Your task to perform on an android device: toggle notifications settings in the gmail app Image 0: 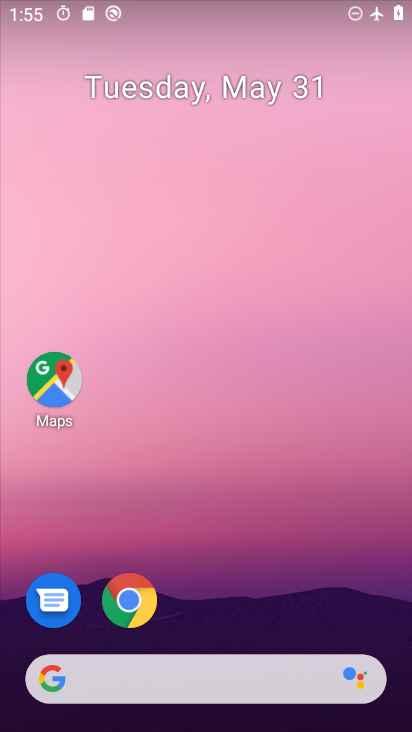
Step 0: drag from (252, 692) to (252, 87)
Your task to perform on an android device: toggle notifications settings in the gmail app Image 1: 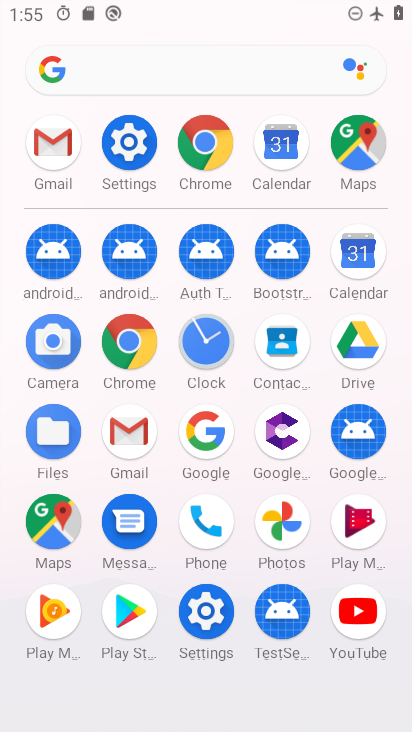
Step 1: click (134, 428)
Your task to perform on an android device: toggle notifications settings in the gmail app Image 2: 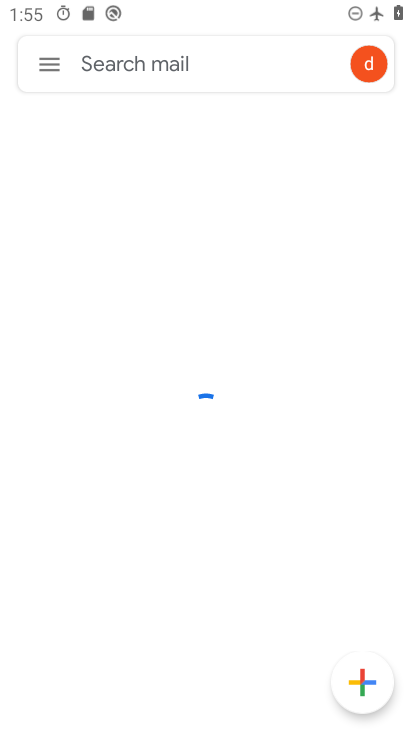
Step 2: click (53, 66)
Your task to perform on an android device: toggle notifications settings in the gmail app Image 3: 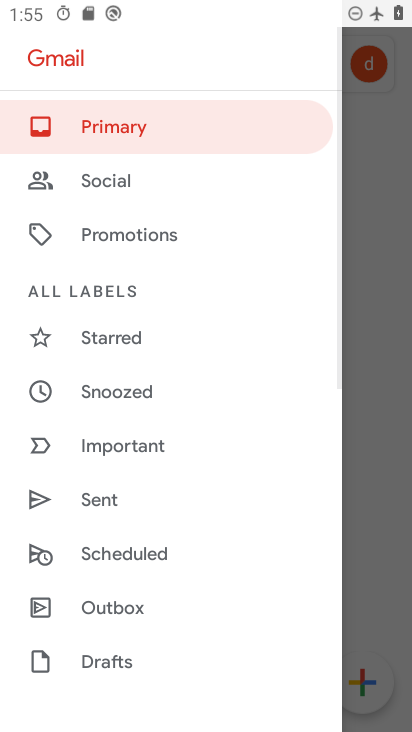
Step 3: drag from (146, 681) to (157, 223)
Your task to perform on an android device: toggle notifications settings in the gmail app Image 4: 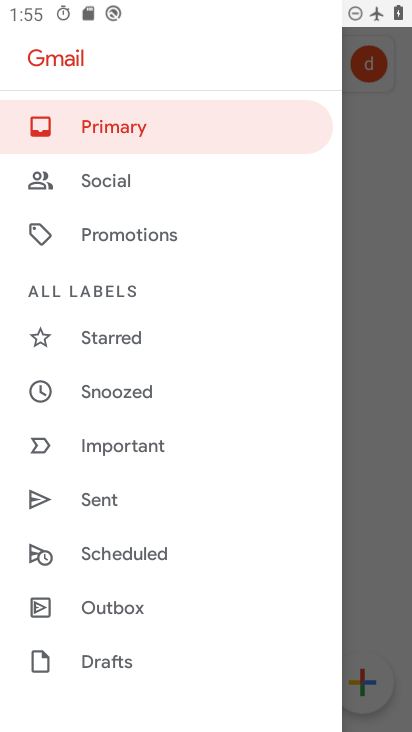
Step 4: drag from (178, 663) to (173, 214)
Your task to perform on an android device: toggle notifications settings in the gmail app Image 5: 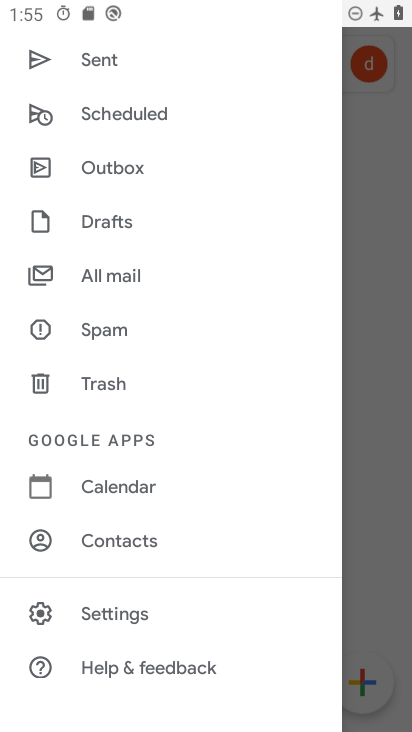
Step 5: click (117, 611)
Your task to perform on an android device: toggle notifications settings in the gmail app Image 6: 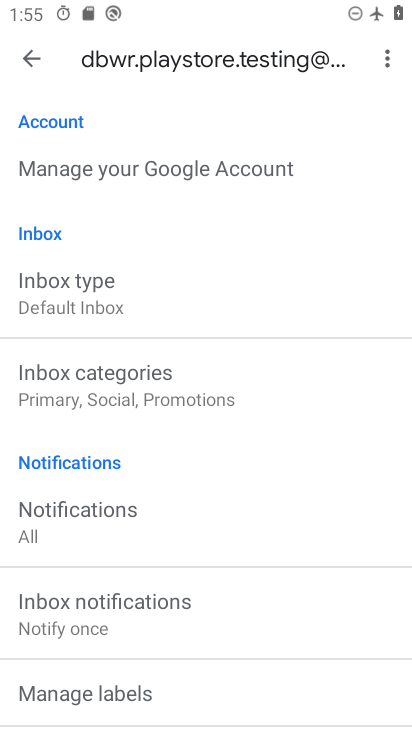
Step 6: click (76, 514)
Your task to perform on an android device: toggle notifications settings in the gmail app Image 7: 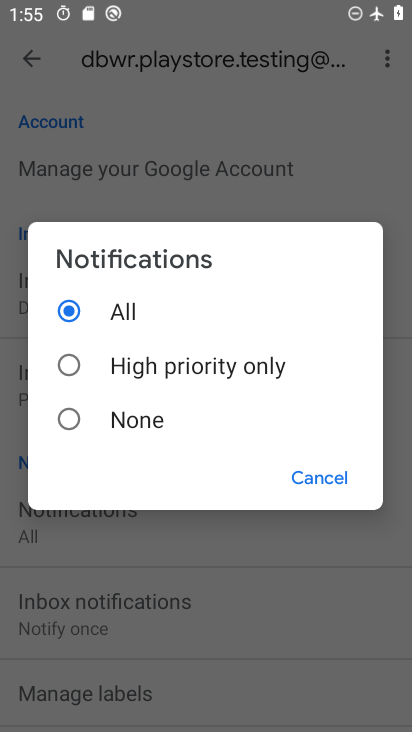
Step 7: click (67, 414)
Your task to perform on an android device: toggle notifications settings in the gmail app Image 8: 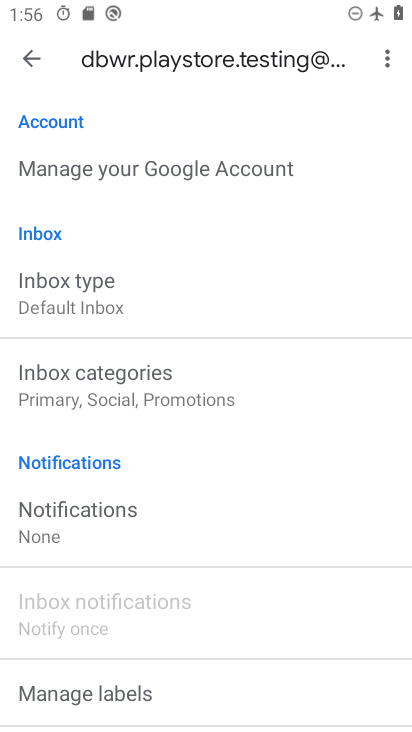
Step 8: task complete